Your task to perform on an android device: Open network settings Image 0: 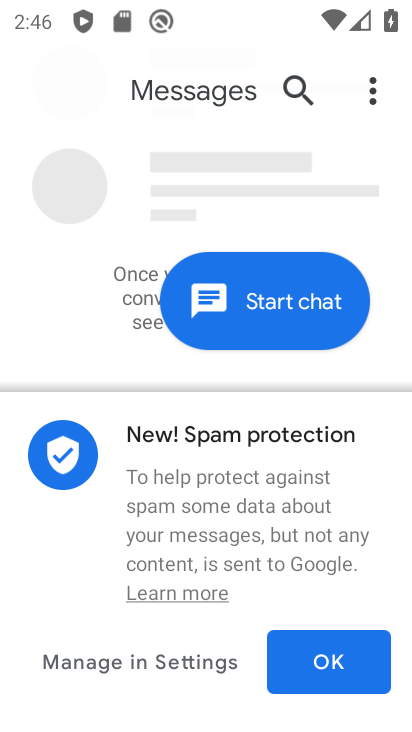
Step 0: press home button
Your task to perform on an android device: Open network settings Image 1: 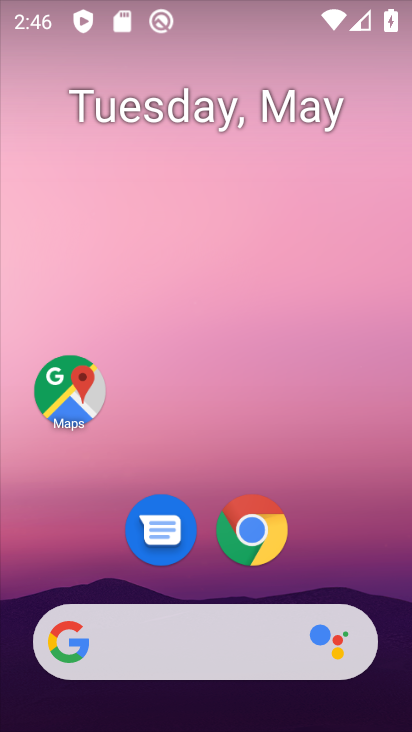
Step 1: drag from (67, 559) to (299, 150)
Your task to perform on an android device: Open network settings Image 2: 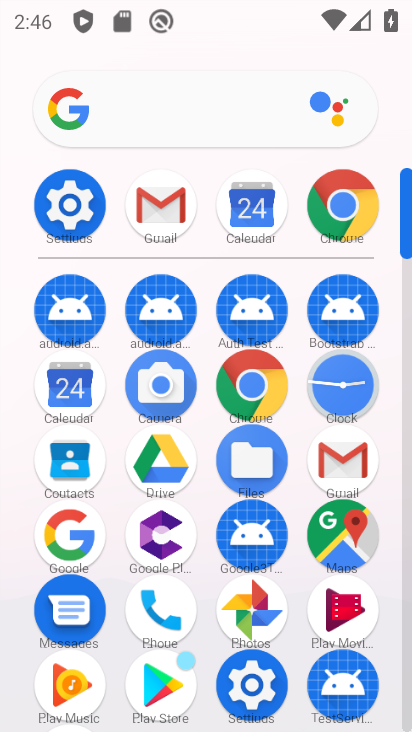
Step 2: click (91, 195)
Your task to perform on an android device: Open network settings Image 3: 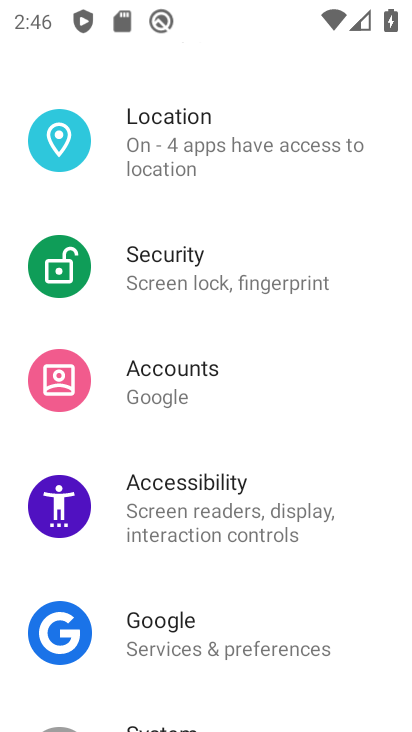
Step 3: drag from (194, 124) to (217, 639)
Your task to perform on an android device: Open network settings Image 4: 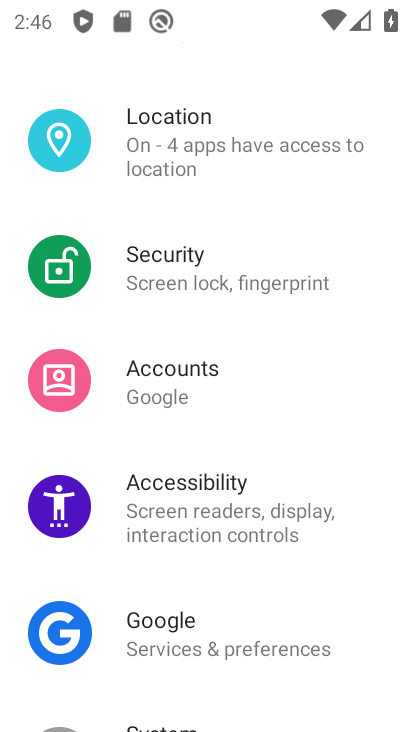
Step 4: drag from (204, 139) to (206, 636)
Your task to perform on an android device: Open network settings Image 5: 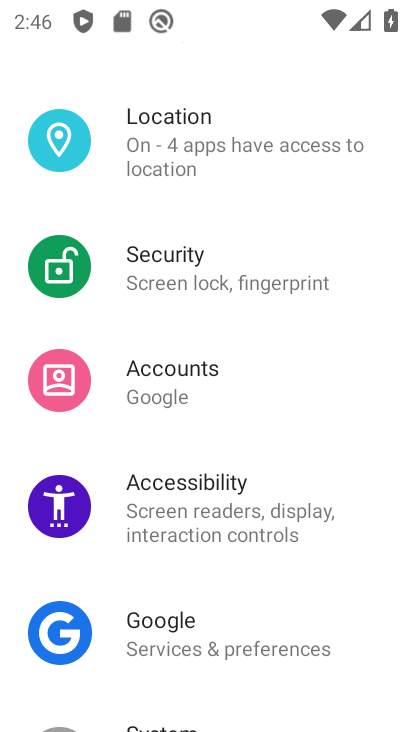
Step 5: drag from (386, 8) to (292, 579)
Your task to perform on an android device: Open network settings Image 6: 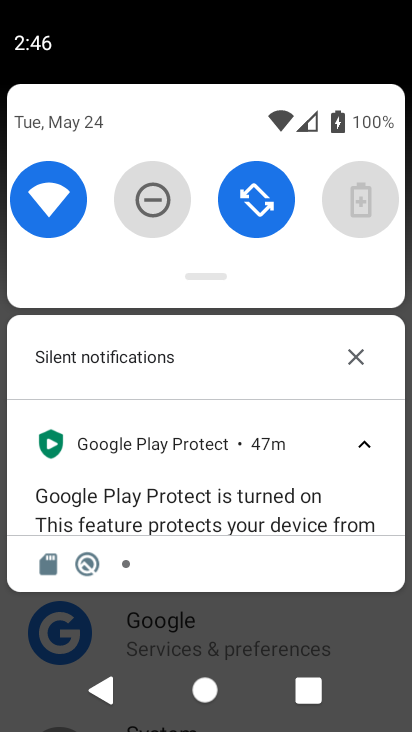
Step 6: click (357, 363)
Your task to perform on an android device: Open network settings Image 7: 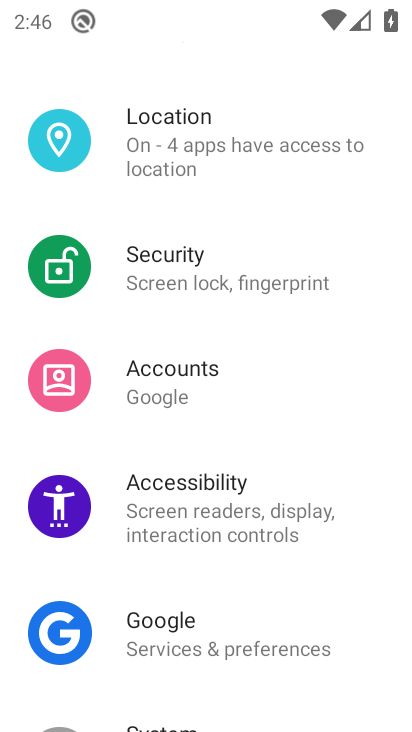
Step 7: drag from (330, 189) to (230, 728)
Your task to perform on an android device: Open network settings Image 8: 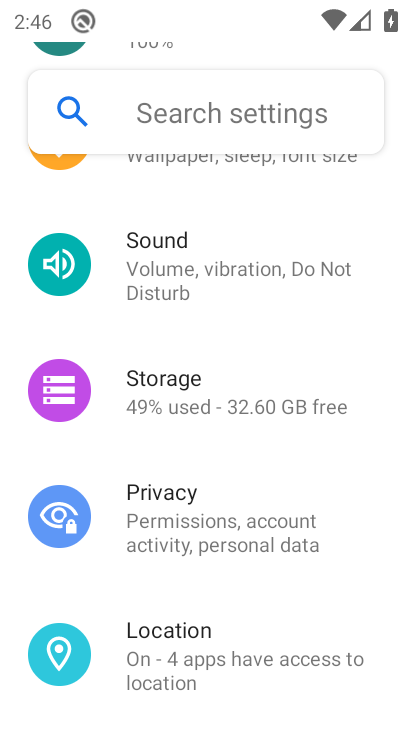
Step 8: drag from (175, 243) to (185, 658)
Your task to perform on an android device: Open network settings Image 9: 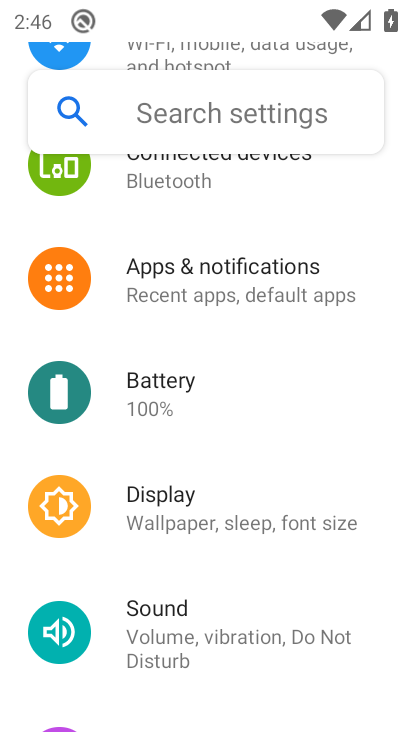
Step 9: drag from (251, 275) to (240, 620)
Your task to perform on an android device: Open network settings Image 10: 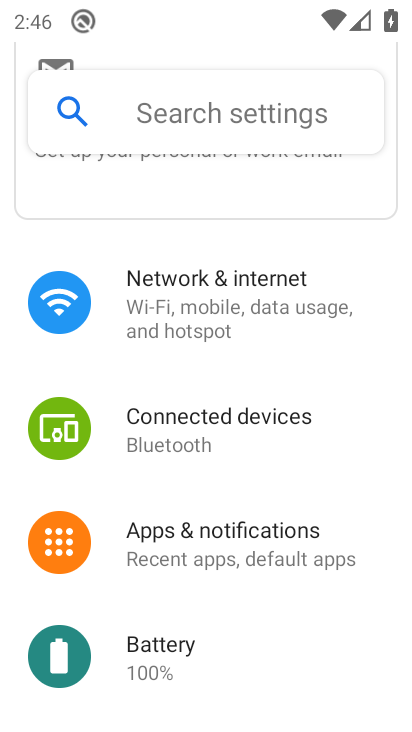
Step 10: click (228, 287)
Your task to perform on an android device: Open network settings Image 11: 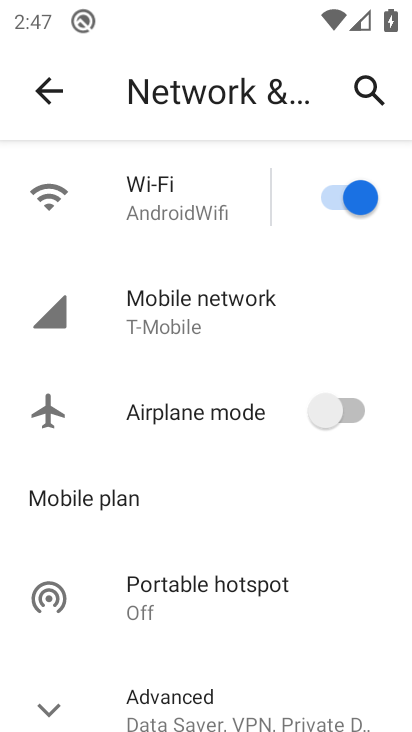
Step 11: click (228, 298)
Your task to perform on an android device: Open network settings Image 12: 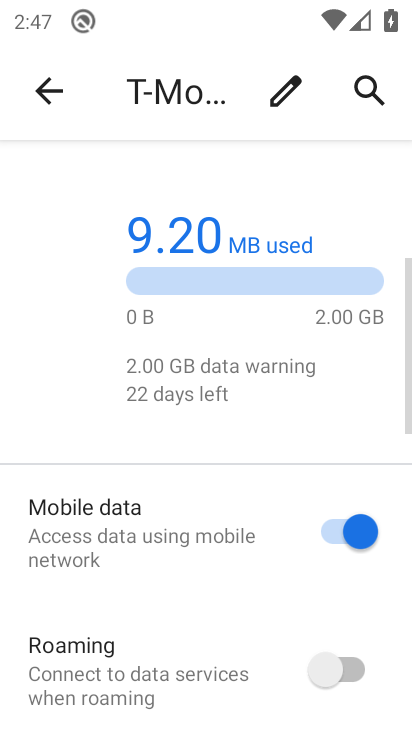
Step 12: task complete